Your task to perform on an android device: Search for pizza restaurants on Maps Image 0: 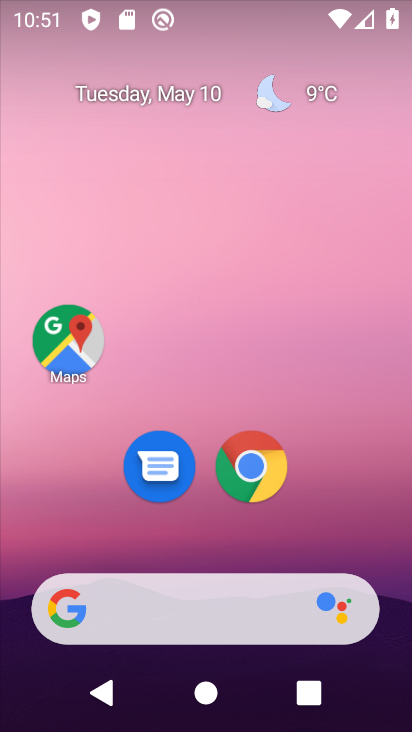
Step 0: drag from (297, 545) to (287, 42)
Your task to perform on an android device: Search for pizza restaurants on Maps Image 1: 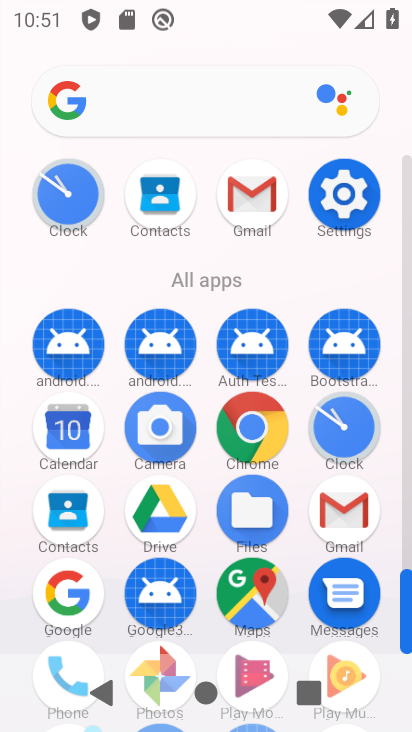
Step 1: click (241, 599)
Your task to perform on an android device: Search for pizza restaurants on Maps Image 2: 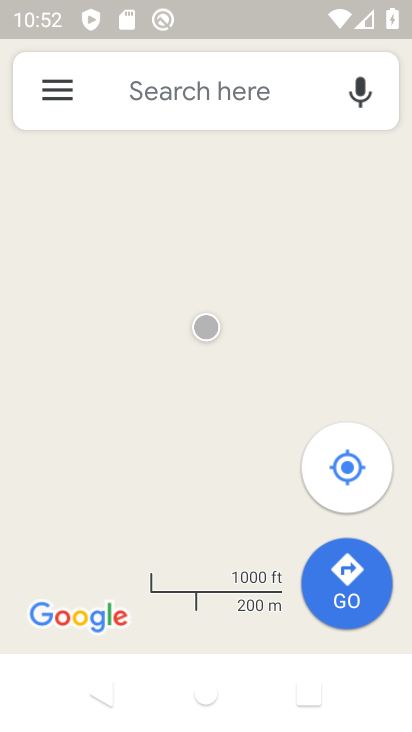
Step 2: click (193, 87)
Your task to perform on an android device: Search for pizza restaurants on Maps Image 3: 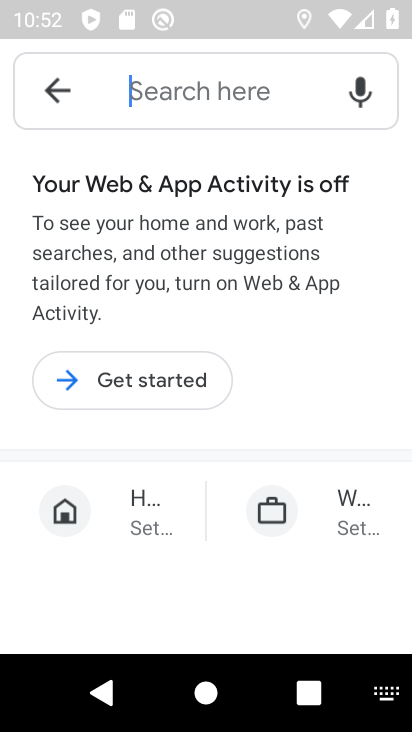
Step 3: type "pizza restaurants"
Your task to perform on an android device: Search for pizza restaurants on Maps Image 4: 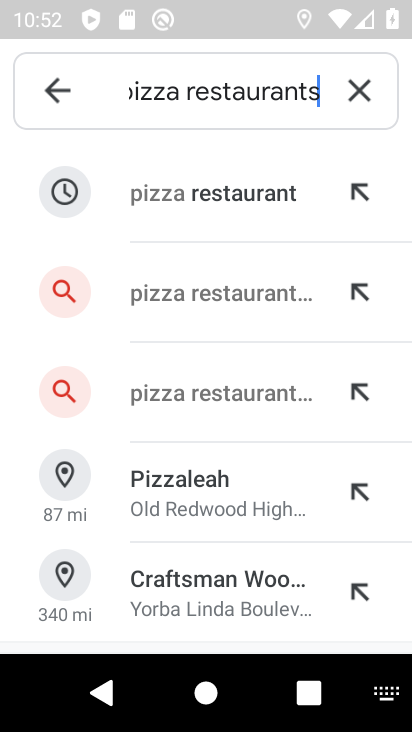
Step 4: click (213, 178)
Your task to perform on an android device: Search for pizza restaurants on Maps Image 5: 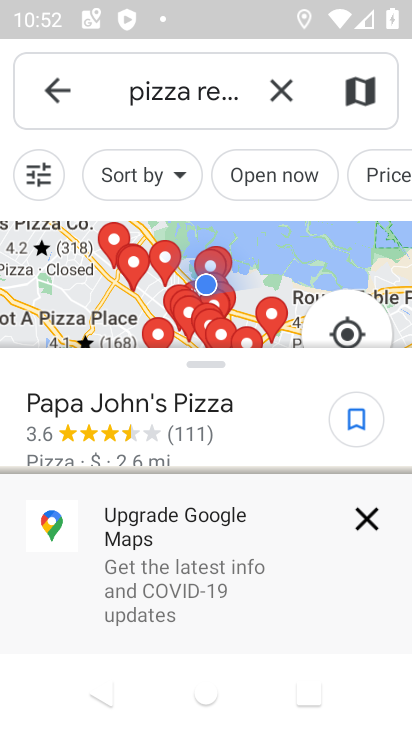
Step 5: task complete